Your task to perform on an android device: check battery use Image 0: 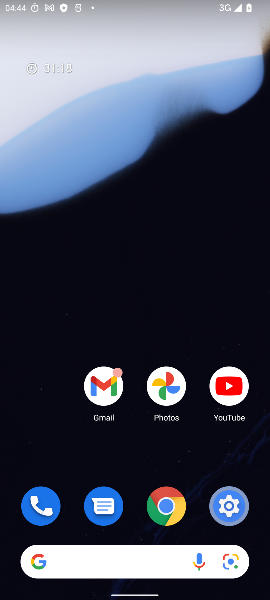
Step 0: drag from (108, 425) to (187, 40)
Your task to perform on an android device: check battery use Image 1: 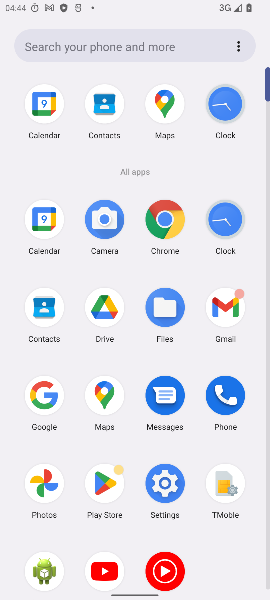
Step 1: click (170, 497)
Your task to perform on an android device: check battery use Image 2: 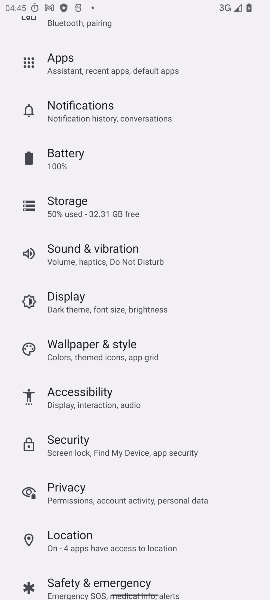
Step 2: click (74, 168)
Your task to perform on an android device: check battery use Image 3: 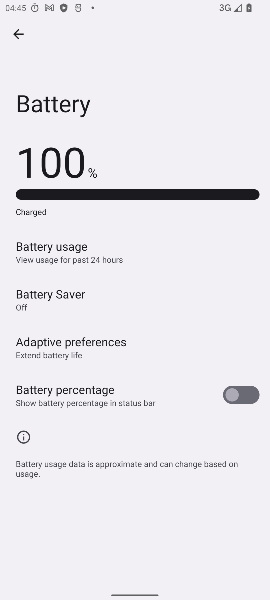
Step 3: task complete